Your task to perform on an android device: check out phone information Image 0: 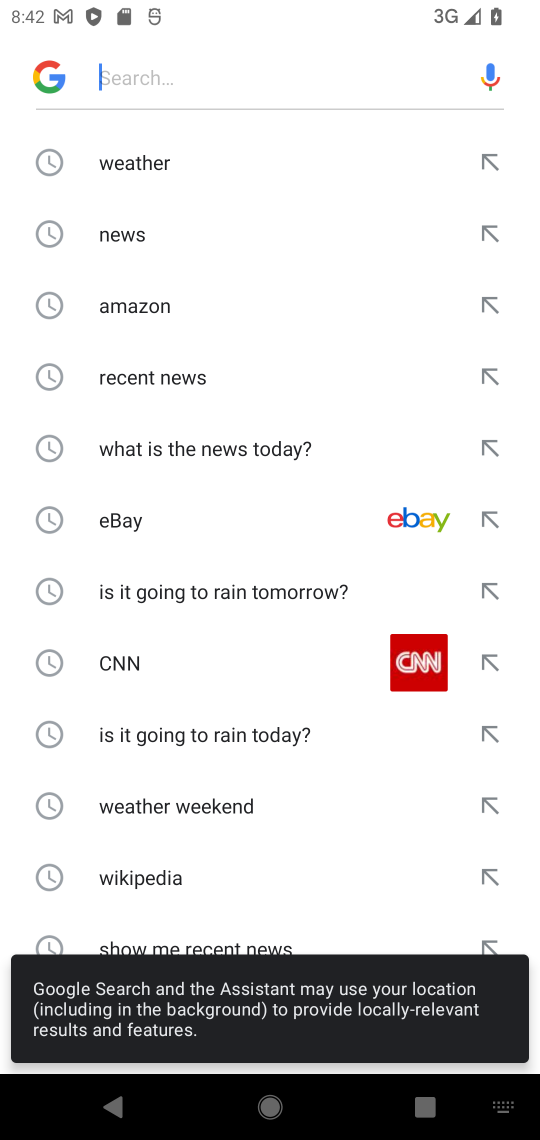
Step 0: press home button
Your task to perform on an android device: check out phone information Image 1: 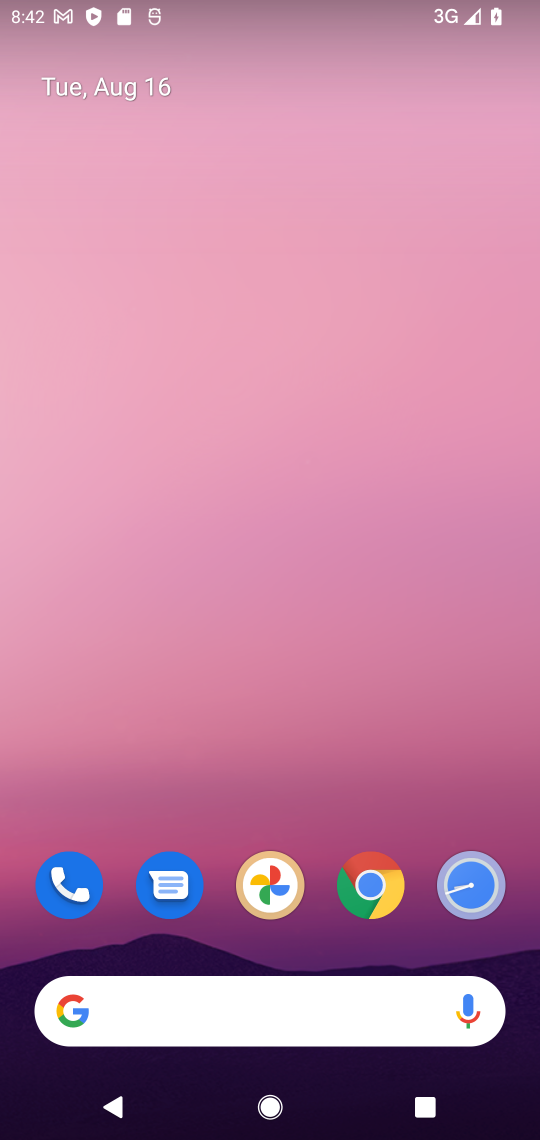
Step 1: drag from (200, 836) to (182, 104)
Your task to perform on an android device: check out phone information Image 2: 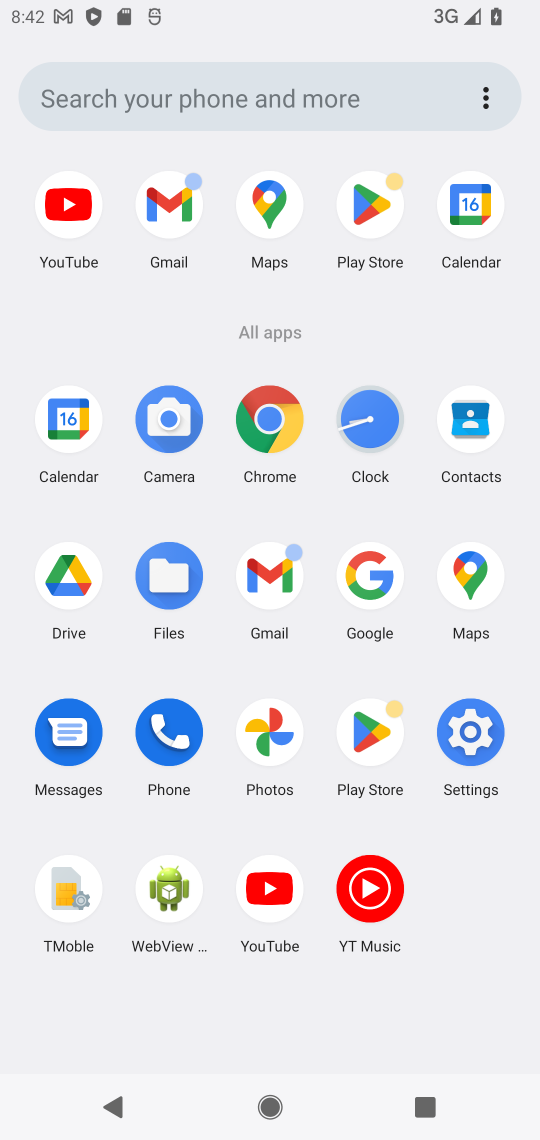
Step 2: click (474, 737)
Your task to perform on an android device: check out phone information Image 3: 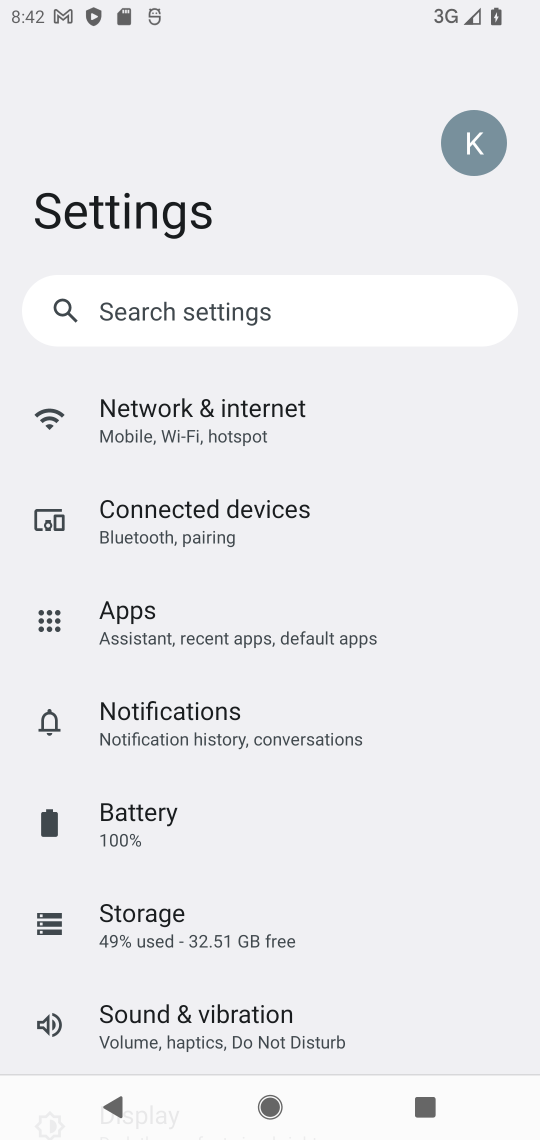
Step 3: drag from (245, 965) to (201, 165)
Your task to perform on an android device: check out phone information Image 4: 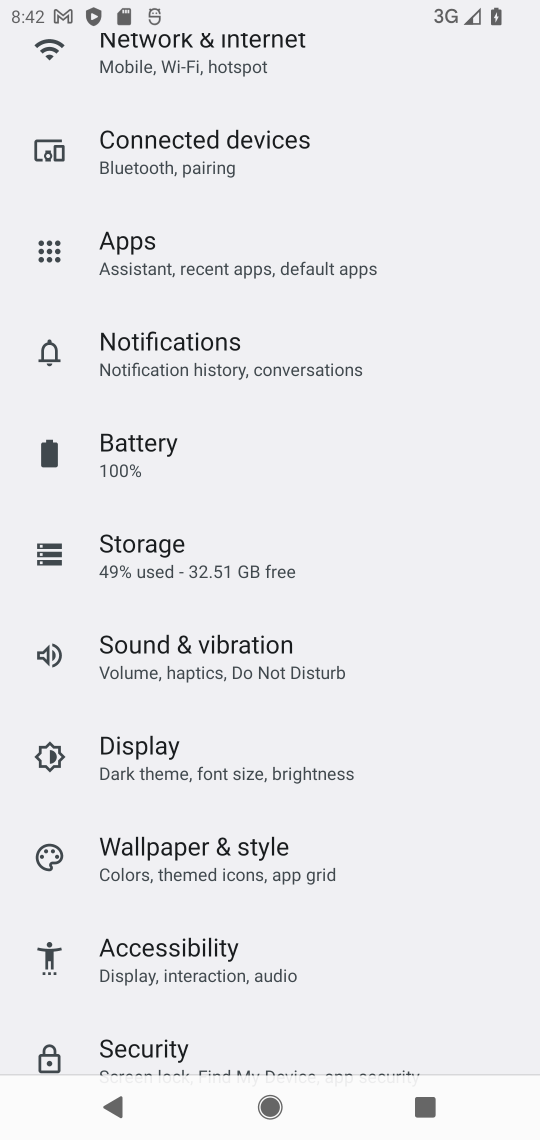
Step 4: drag from (177, 944) to (205, 367)
Your task to perform on an android device: check out phone information Image 5: 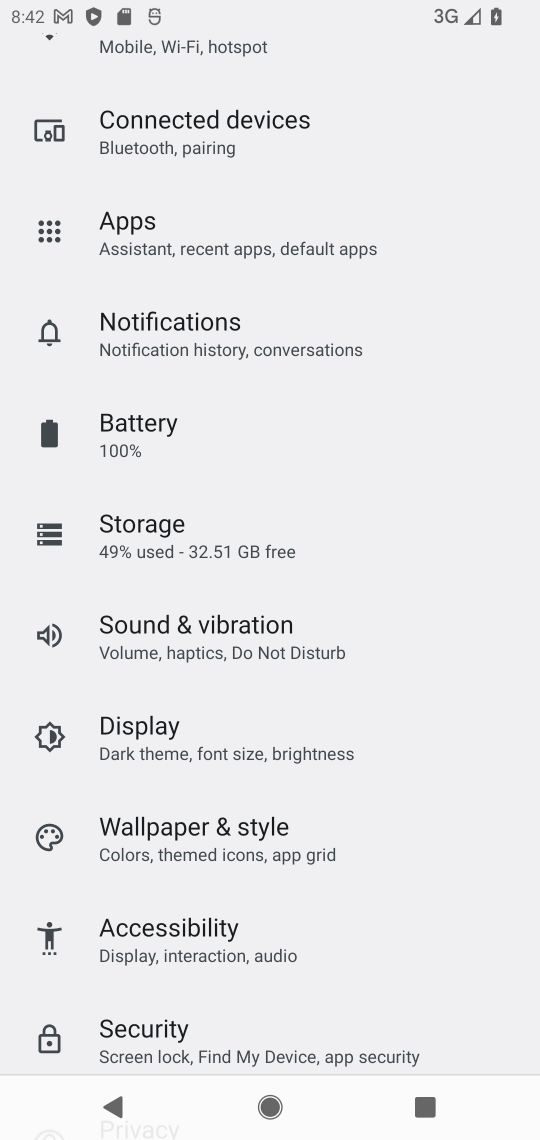
Step 5: drag from (229, 995) to (270, 383)
Your task to perform on an android device: check out phone information Image 6: 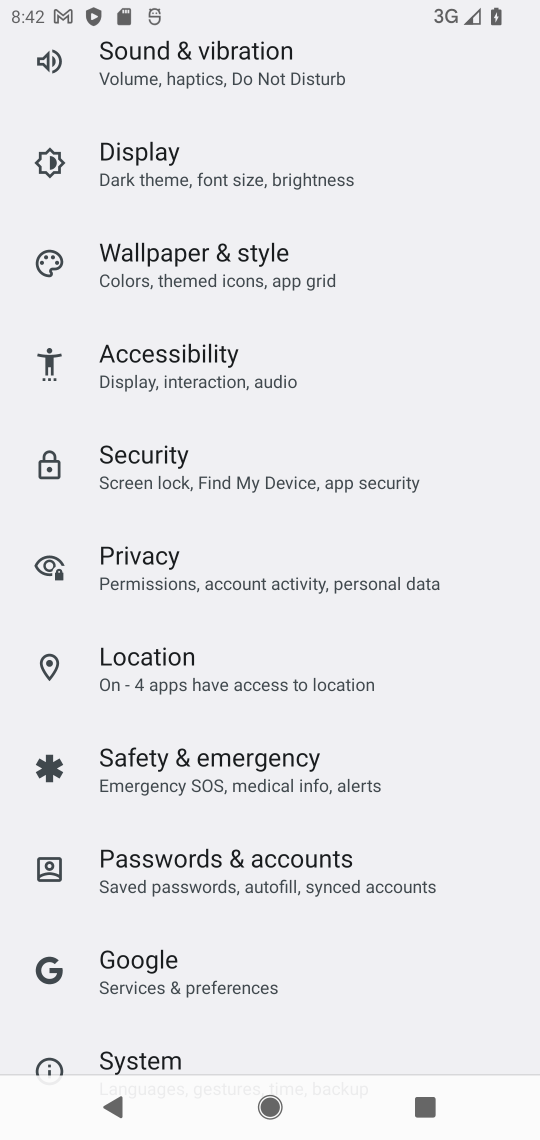
Step 6: drag from (204, 1001) to (195, 269)
Your task to perform on an android device: check out phone information Image 7: 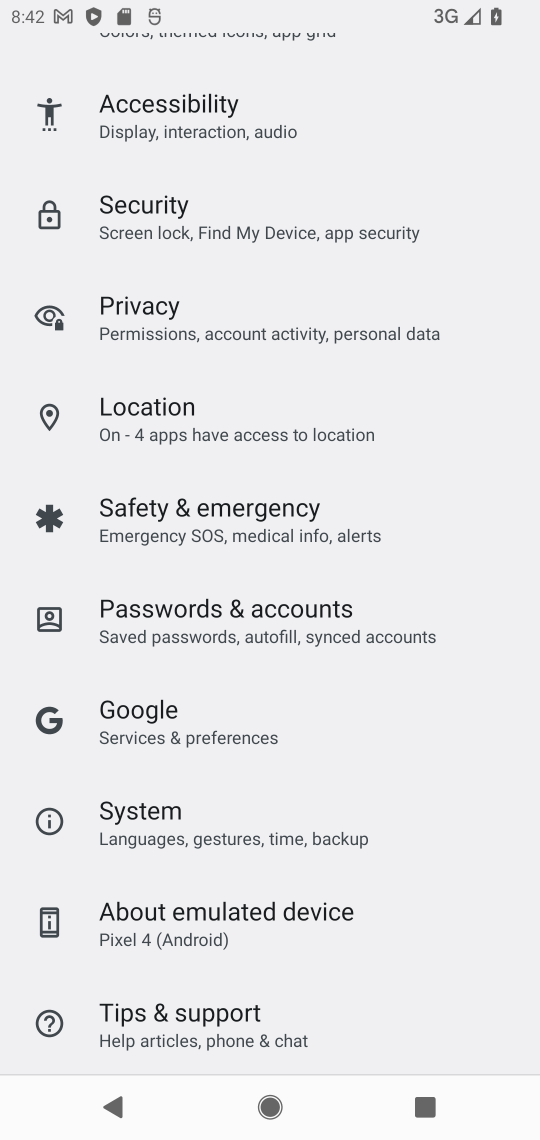
Step 7: click (196, 928)
Your task to perform on an android device: check out phone information Image 8: 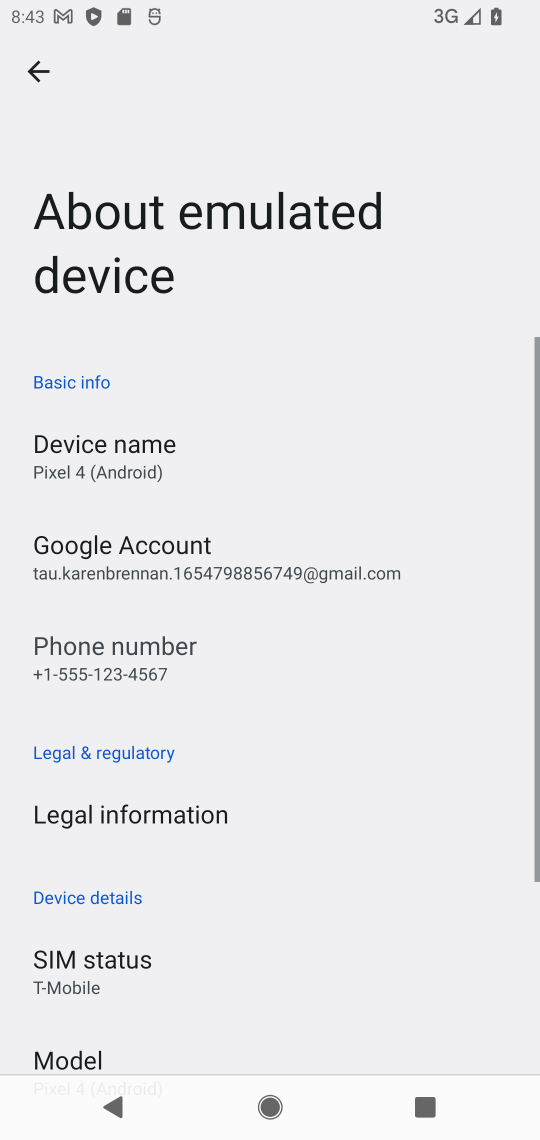
Step 8: task complete